Your task to perform on an android device: Go to internet settings Image 0: 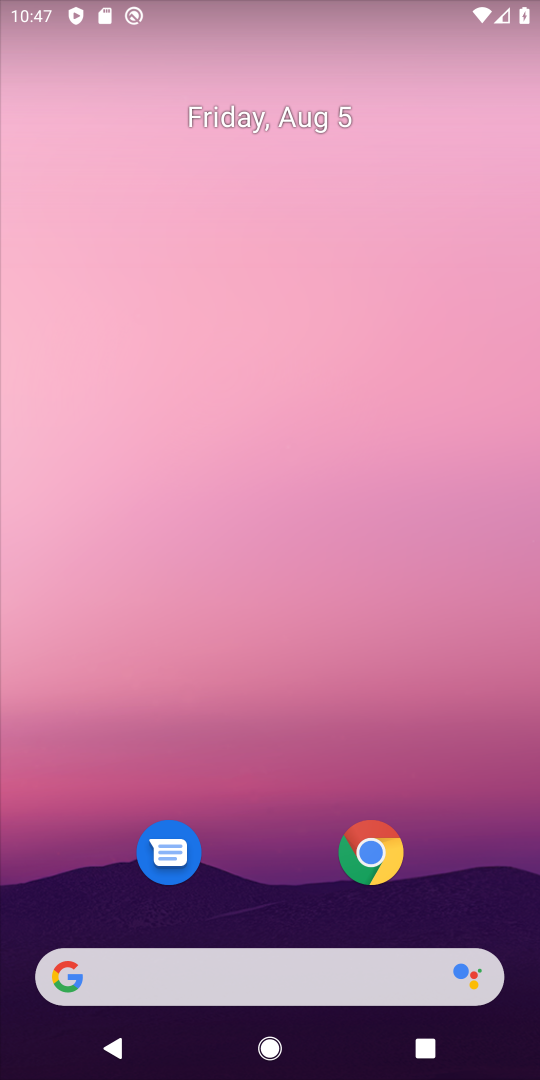
Step 0: drag from (311, 911) to (353, 387)
Your task to perform on an android device: Go to internet settings Image 1: 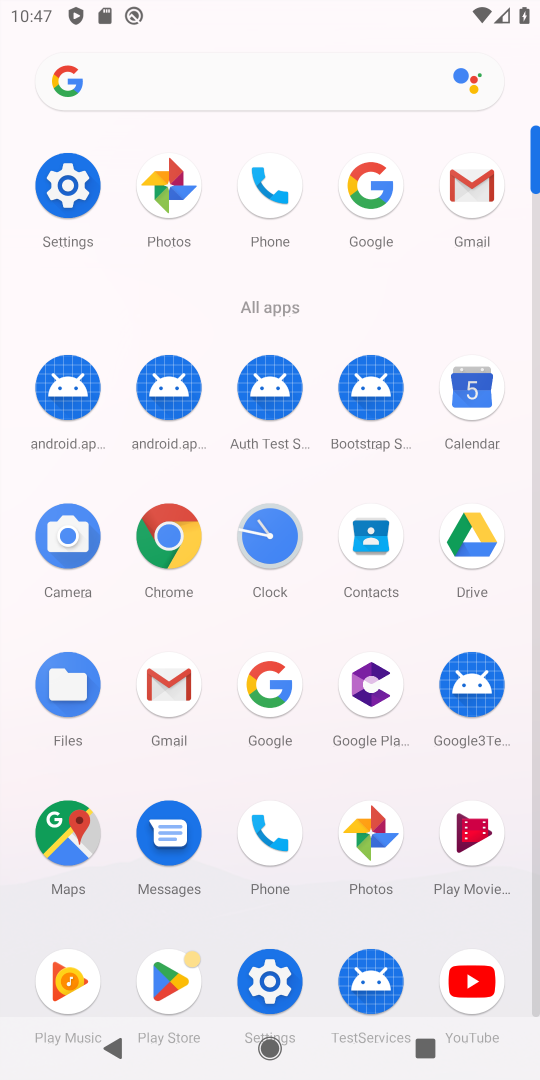
Step 1: click (70, 192)
Your task to perform on an android device: Go to internet settings Image 2: 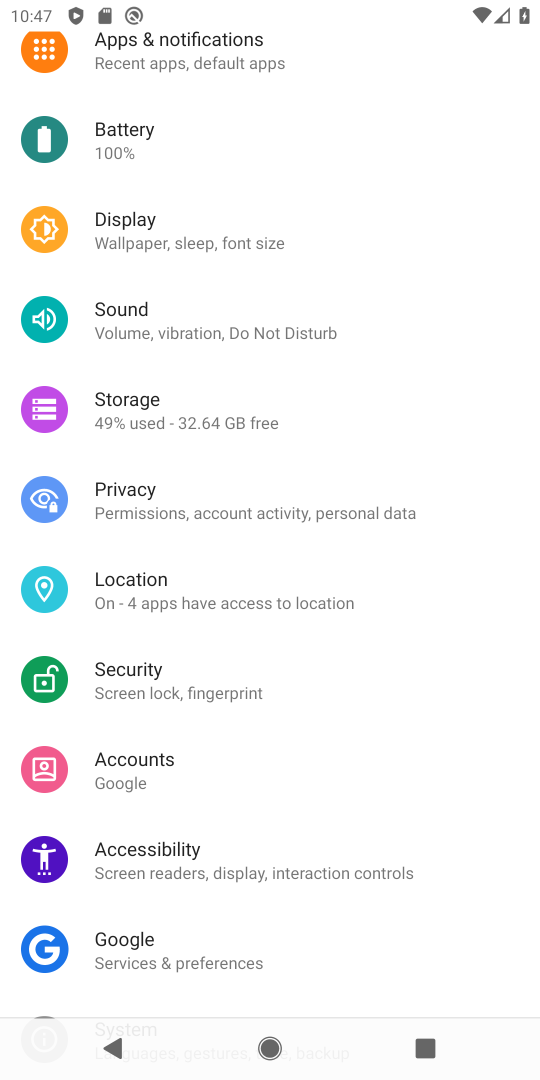
Step 2: drag from (225, 112) to (281, 783)
Your task to perform on an android device: Go to internet settings Image 3: 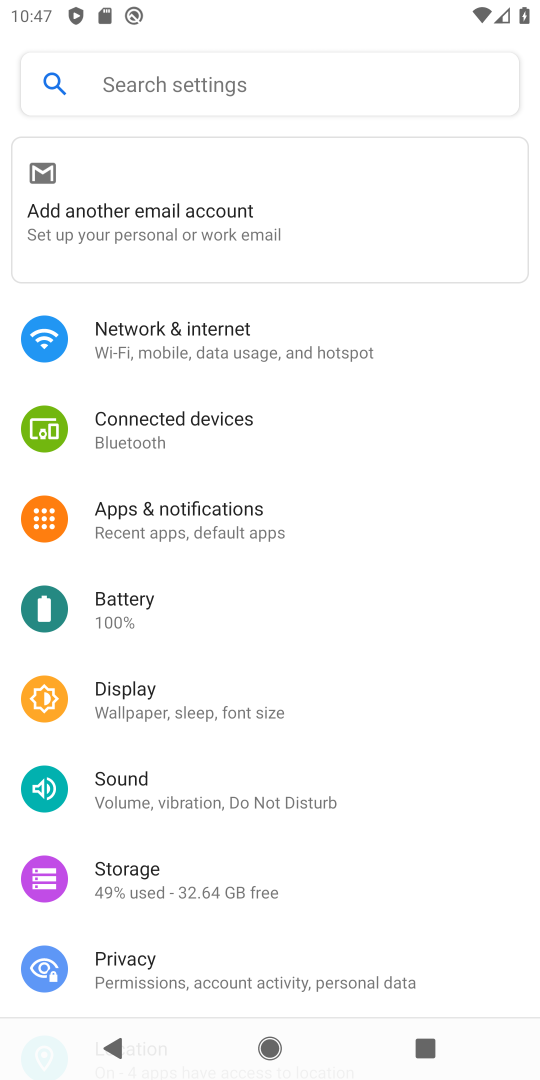
Step 3: click (182, 356)
Your task to perform on an android device: Go to internet settings Image 4: 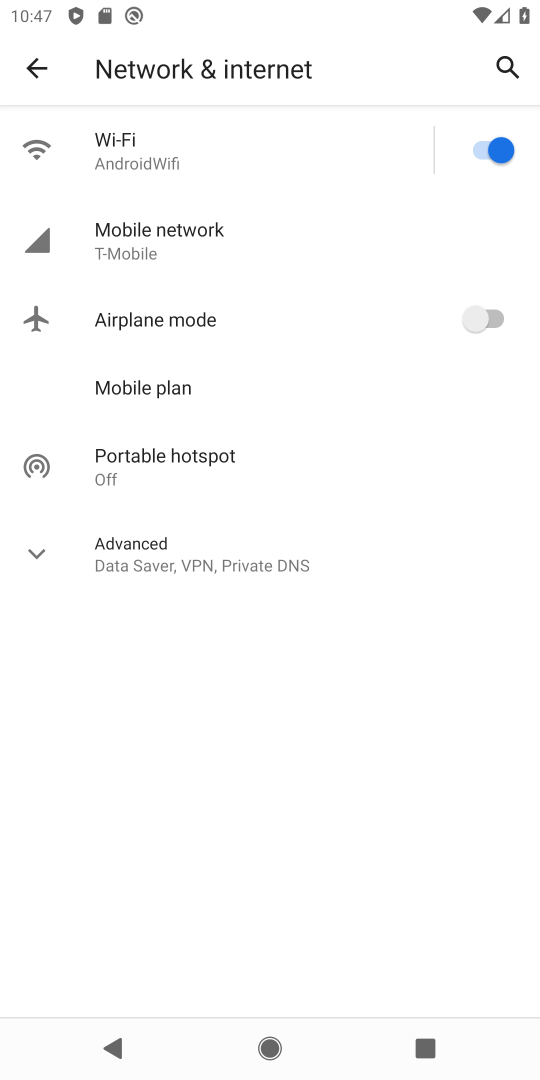
Step 4: click (206, 553)
Your task to perform on an android device: Go to internet settings Image 5: 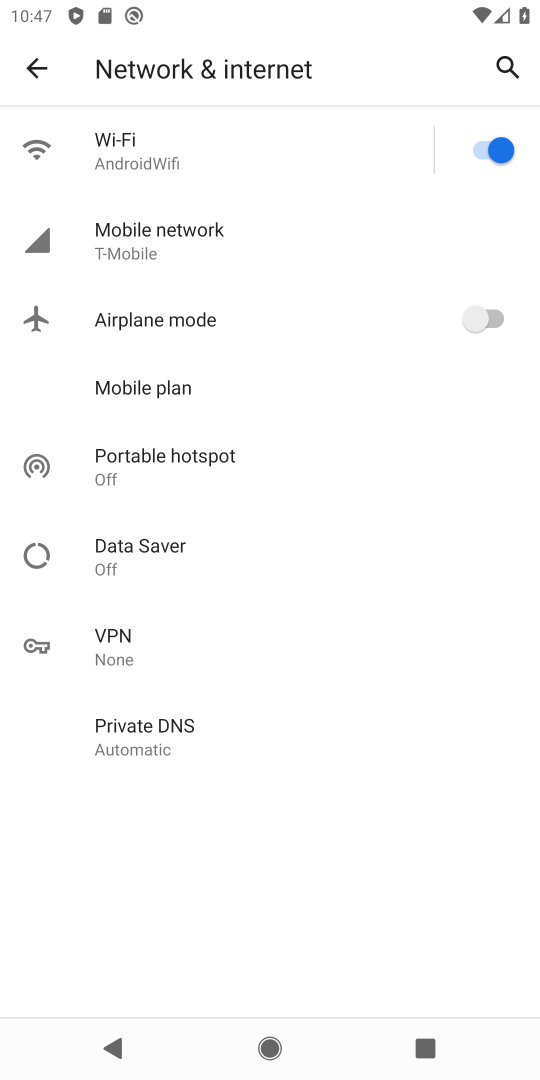
Step 5: task complete